Your task to perform on an android device: turn off notifications settings in the gmail app Image 0: 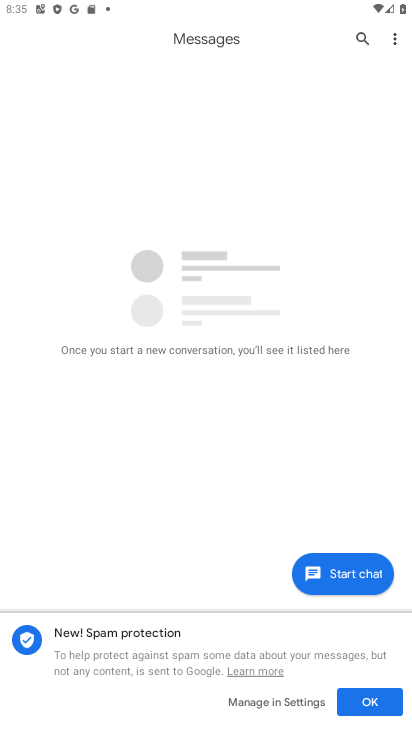
Step 0: press home button
Your task to perform on an android device: turn off notifications settings in the gmail app Image 1: 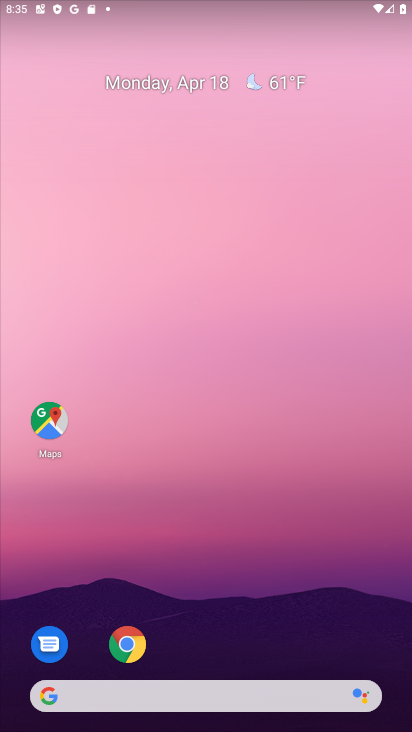
Step 1: drag from (192, 685) to (250, 191)
Your task to perform on an android device: turn off notifications settings in the gmail app Image 2: 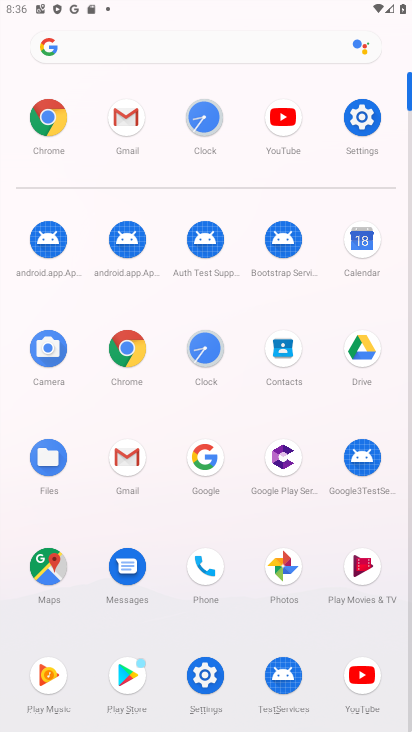
Step 2: click (129, 480)
Your task to perform on an android device: turn off notifications settings in the gmail app Image 3: 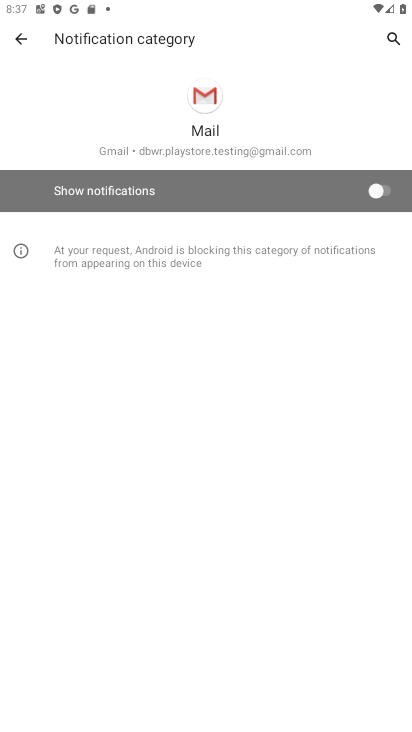
Step 3: task complete